Your task to perform on an android device: Check the weather Image 0: 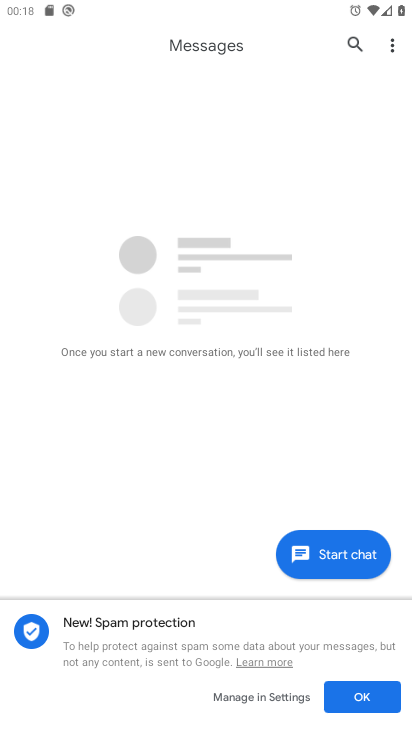
Step 0: press home button
Your task to perform on an android device: Check the weather Image 1: 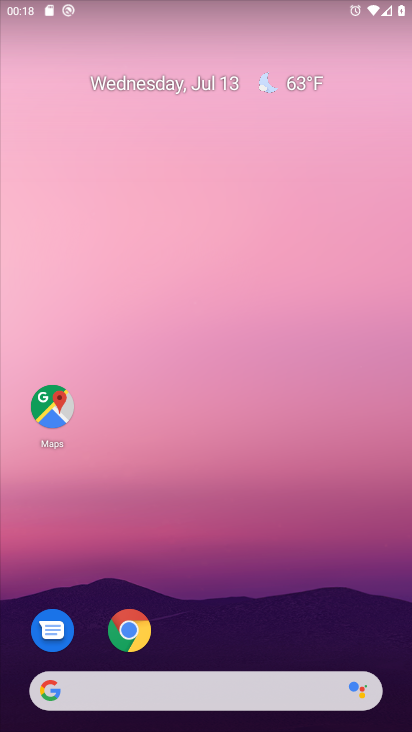
Step 1: click (127, 651)
Your task to perform on an android device: Check the weather Image 2: 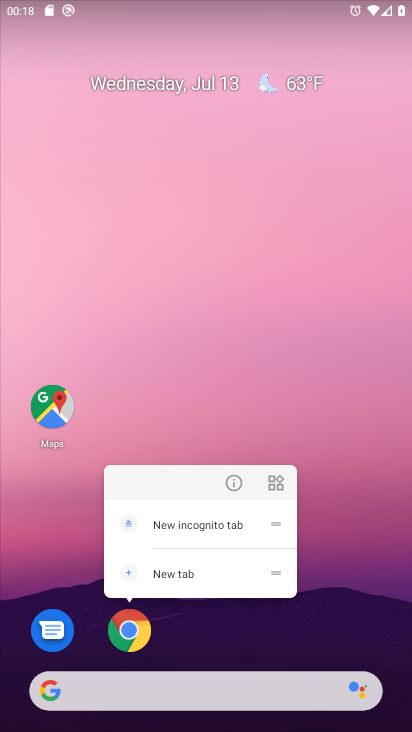
Step 2: click (127, 644)
Your task to perform on an android device: Check the weather Image 3: 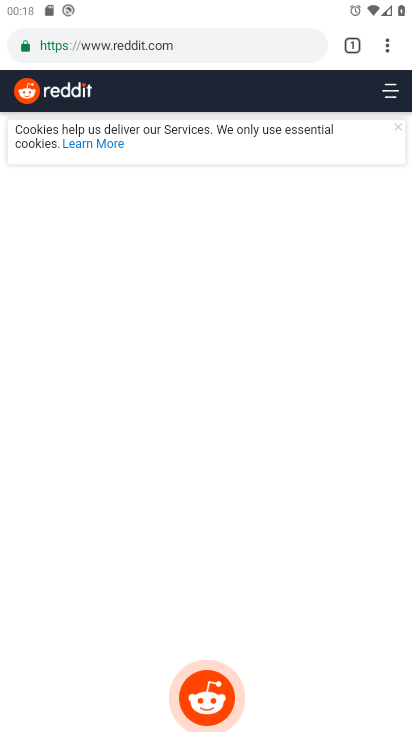
Step 3: click (179, 49)
Your task to perform on an android device: Check the weather Image 4: 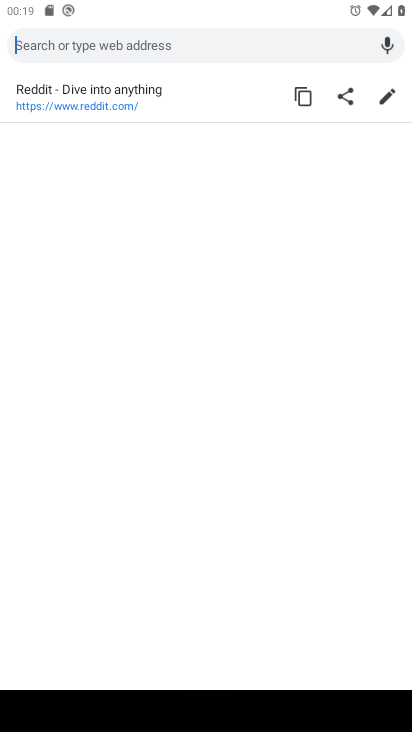
Step 4: type "weather"
Your task to perform on an android device: Check the weather Image 5: 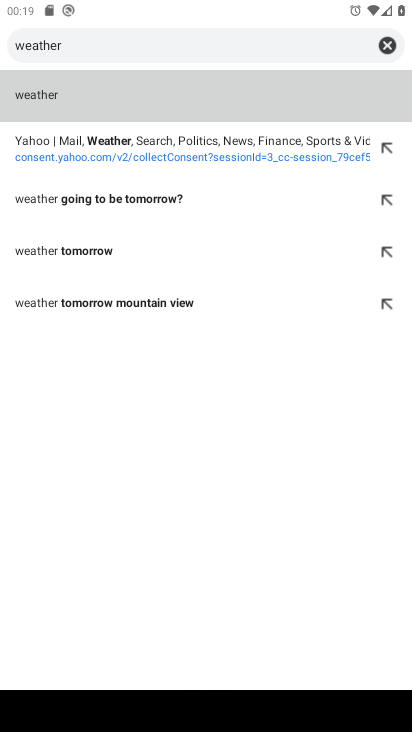
Step 5: click (117, 90)
Your task to perform on an android device: Check the weather Image 6: 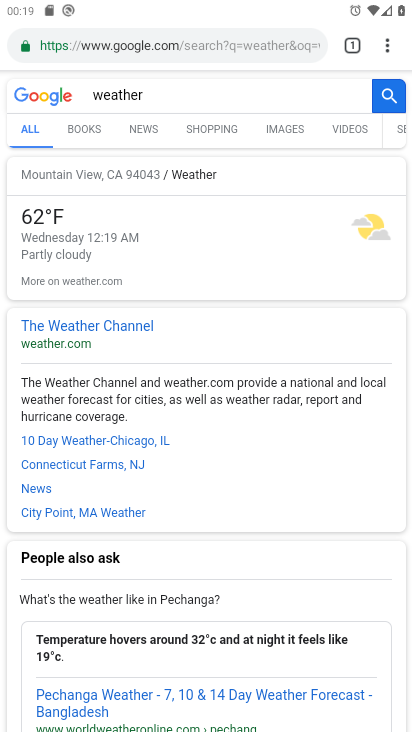
Step 6: task complete